Your task to perform on an android device: Open the stopwatch Image 0: 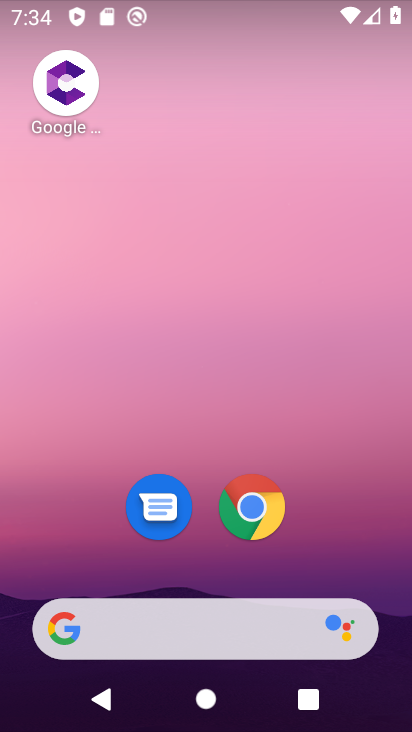
Step 0: drag from (332, 508) to (274, 218)
Your task to perform on an android device: Open the stopwatch Image 1: 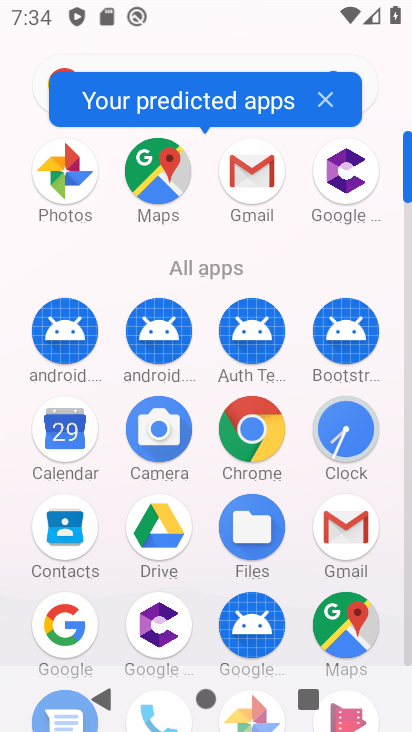
Step 1: click (339, 447)
Your task to perform on an android device: Open the stopwatch Image 2: 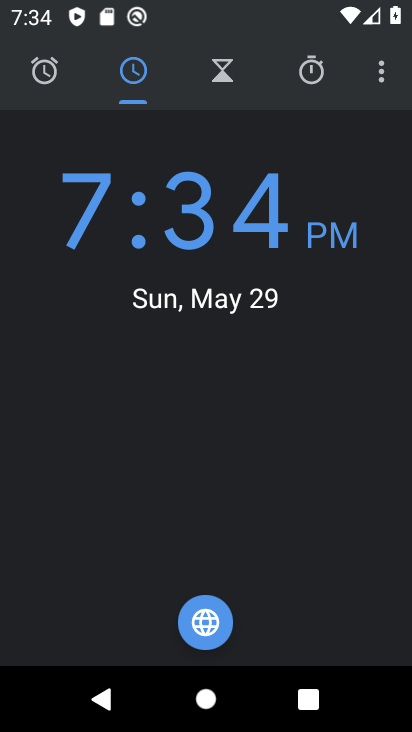
Step 2: click (309, 71)
Your task to perform on an android device: Open the stopwatch Image 3: 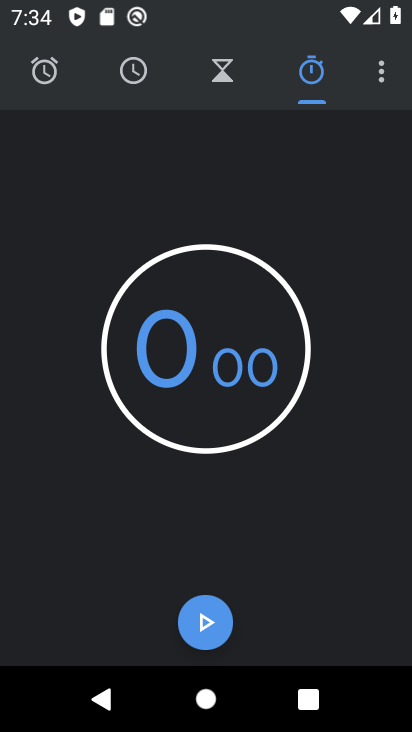
Step 3: task complete